Your task to perform on an android device: Go to internet settings Image 0: 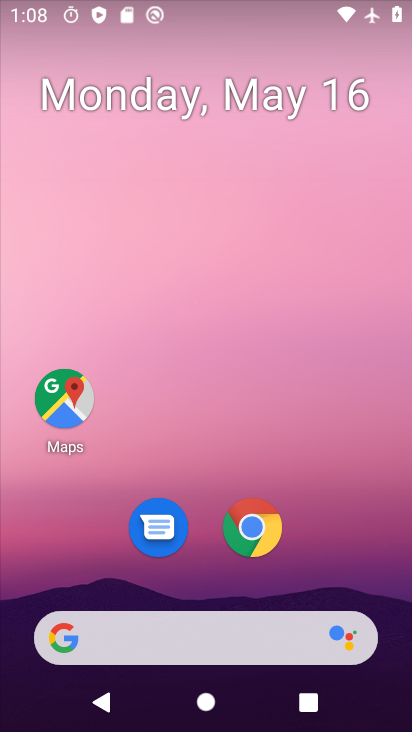
Step 0: press home button
Your task to perform on an android device: Go to internet settings Image 1: 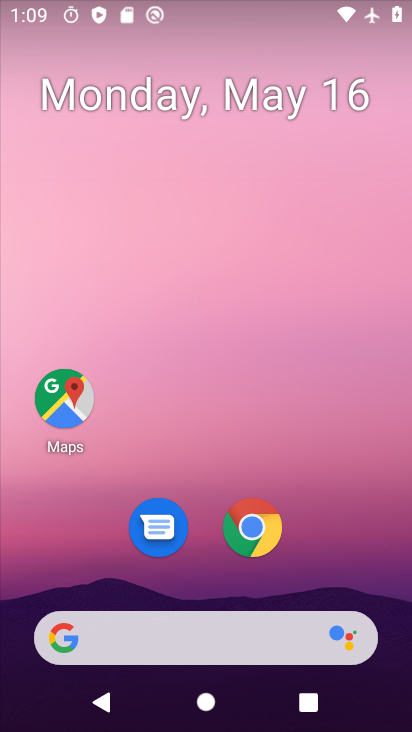
Step 1: drag from (143, 649) to (350, 43)
Your task to perform on an android device: Go to internet settings Image 2: 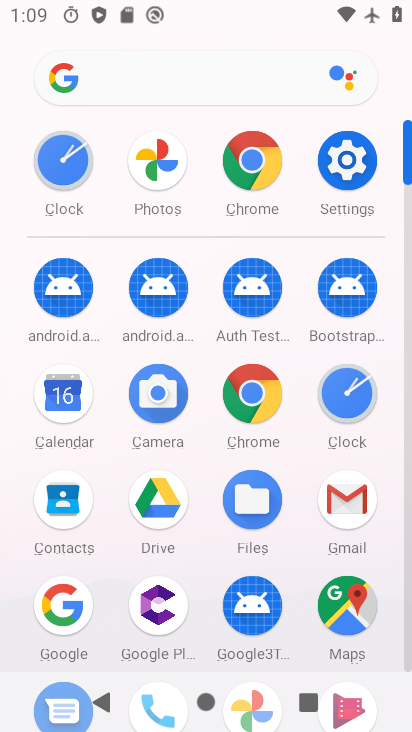
Step 2: click (352, 168)
Your task to perform on an android device: Go to internet settings Image 3: 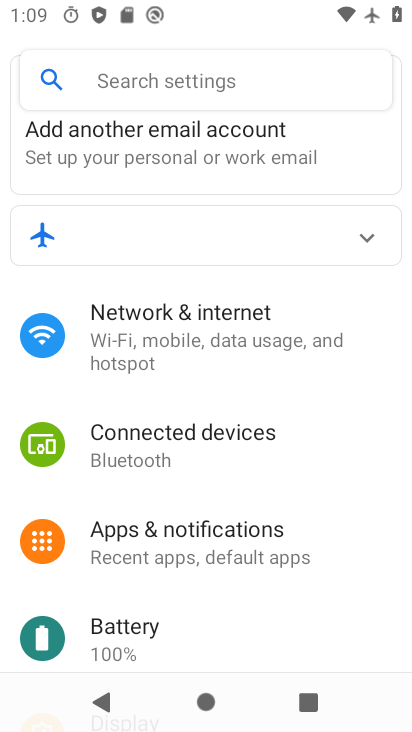
Step 3: click (186, 319)
Your task to perform on an android device: Go to internet settings Image 4: 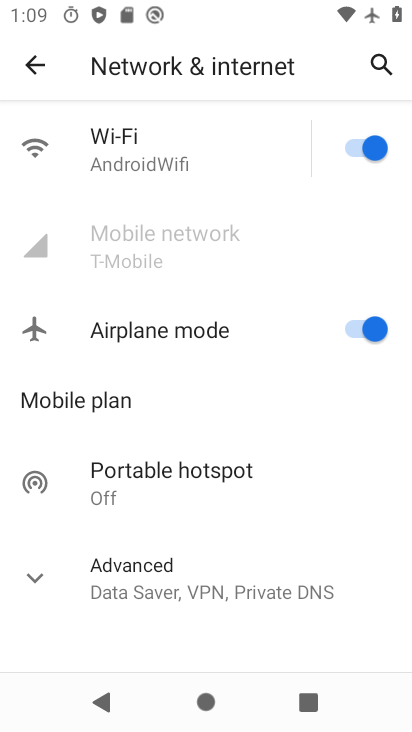
Step 4: click (153, 153)
Your task to perform on an android device: Go to internet settings Image 5: 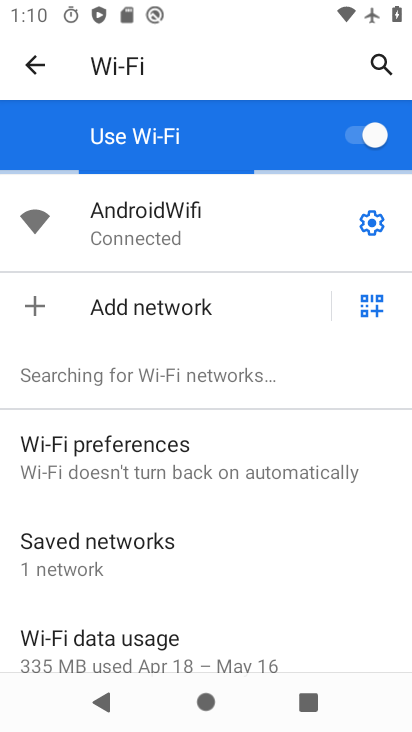
Step 5: task complete